Your task to perform on an android device: manage bookmarks in the chrome app Image 0: 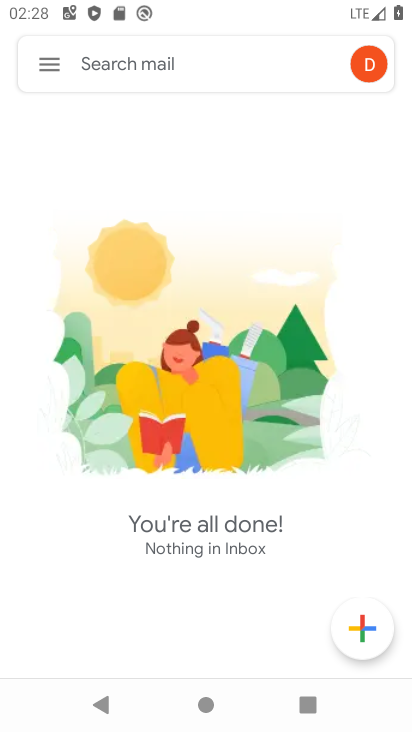
Step 0: press home button
Your task to perform on an android device: manage bookmarks in the chrome app Image 1: 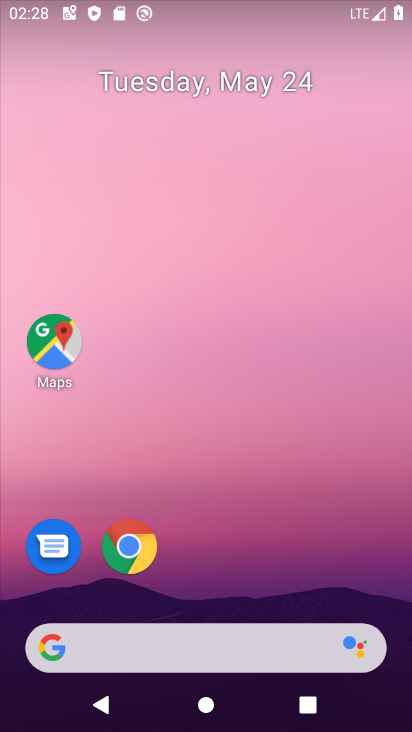
Step 1: drag from (181, 610) to (271, 53)
Your task to perform on an android device: manage bookmarks in the chrome app Image 2: 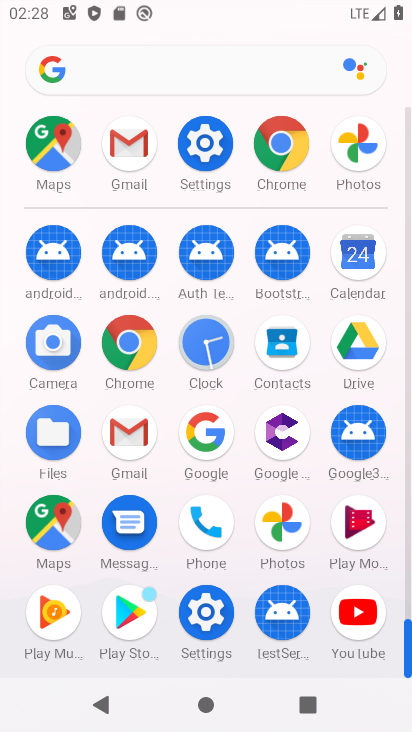
Step 2: click (139, 338)
Your task to perform on an android device: manage bookmarks in the chrome app Image 3: 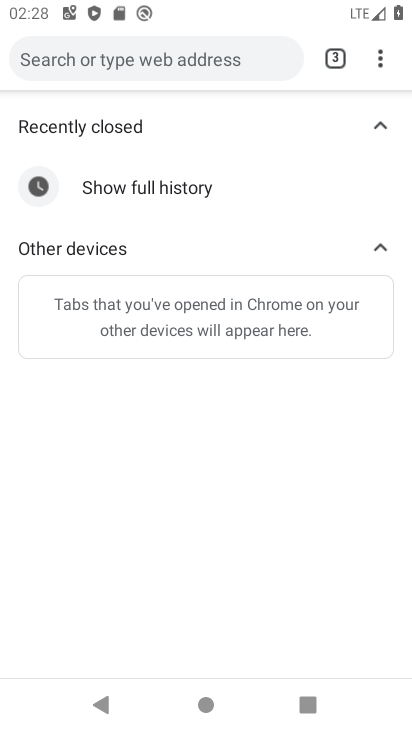
Step 3: click (375, 63)
Your task to perform on an android device: manage bookmarks in the chrome app Image 4: 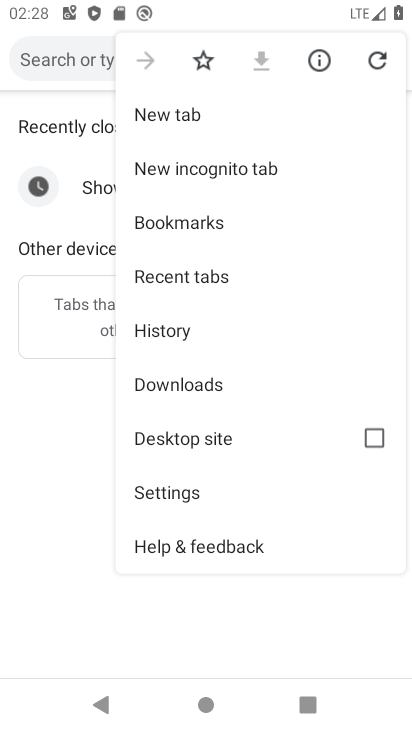
Step 4: click (221, 219)
Your task to perform on an android device: manage bookmarks in the chrome app Image 5: 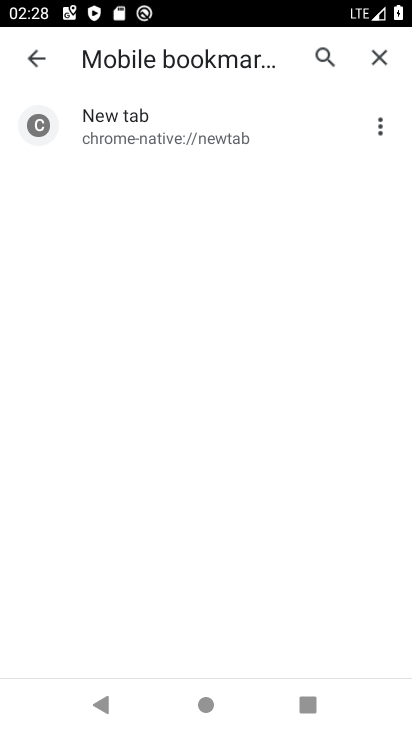
Step 5: task complete